Your task to perform on an android device: change text size in settings app Image 0: 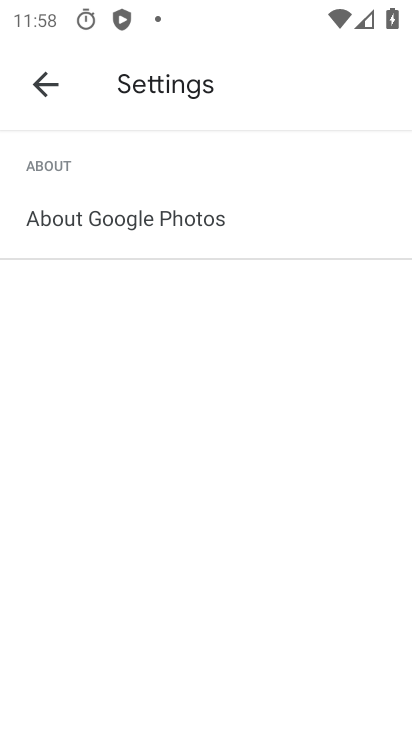
Step 0: press home button
Your task to perform on an android device: change text size in settings app Image 1: 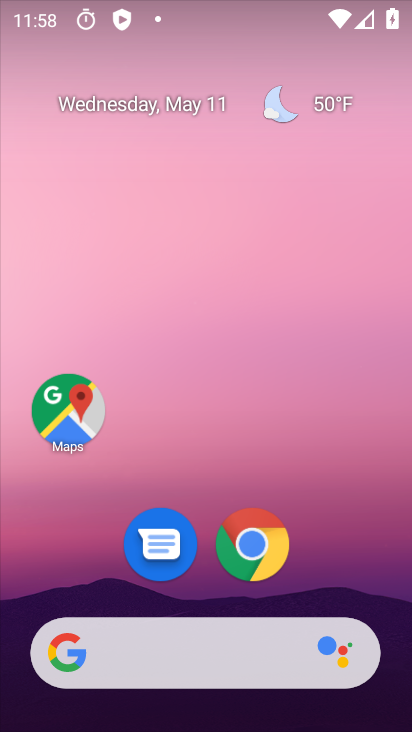
Step 1: drag from (221, 620) to (40, 411)
Your task to perform on an android device: change text size in settings app Image 2: 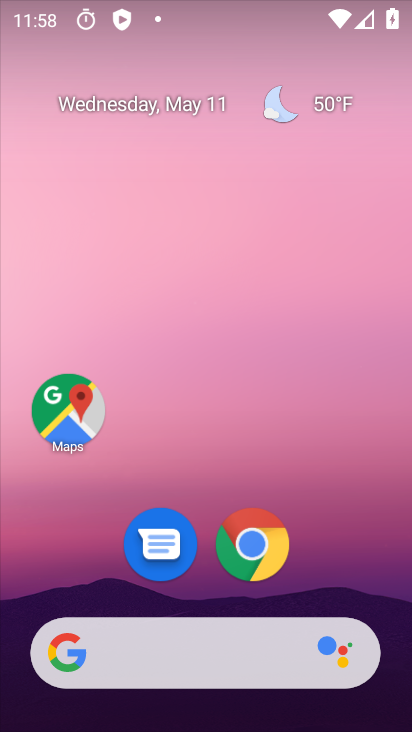
Step 2: drag from (228, 655) to (176, 69)
Your task to perform on an android device: change text size in settings app Image 3: 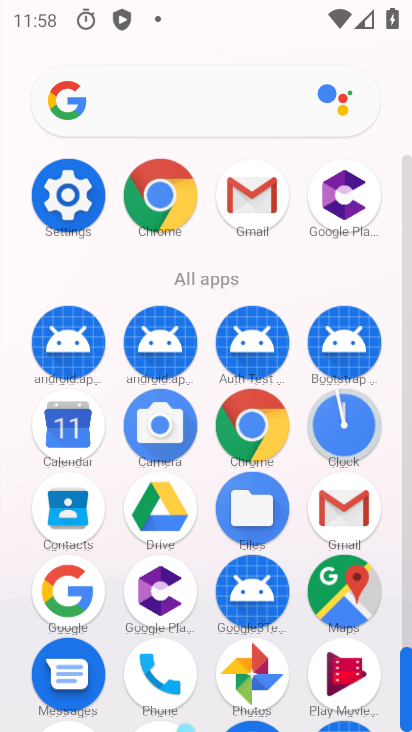
Step 3: click (59, 188)
Your task to perform on an android device: change text size in settings app Image 4: 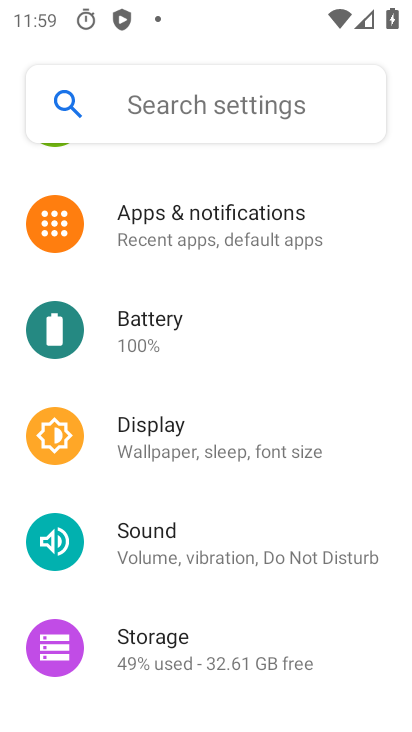
Step 4: click (166, 444)
Your task to perform on an android device: change text size in settings app Image 5: 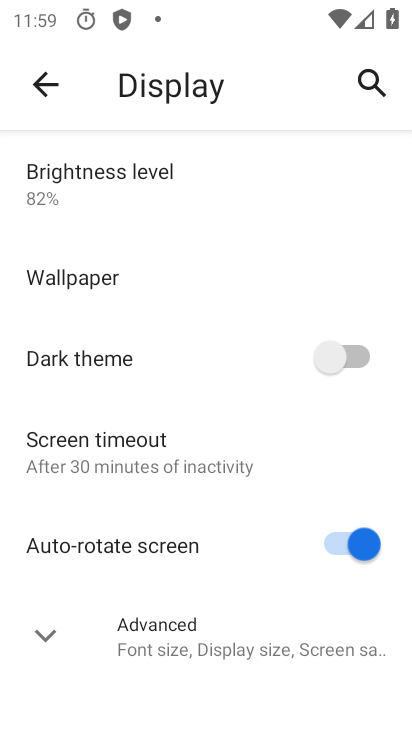
Step 5: drag from (158, 624) to (124, 428)
Your task to perform on an android device: change text size in settings app Image 6: 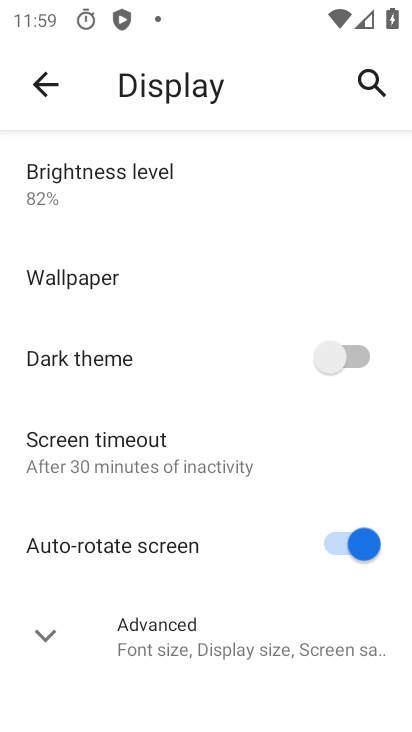
Step 6: click (158, 650)
Your task to perform on an android device: change text size in settings app Image 7: 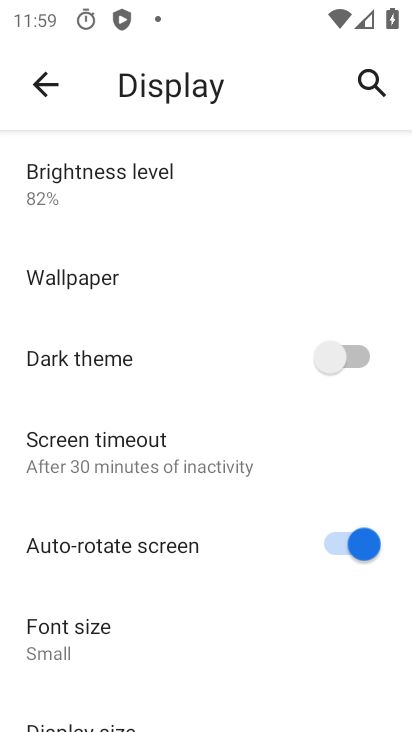
Step 7: drag from (139, 637) to (136, 390)
Your task to perform on an android device: change text size in settings app Image 8: 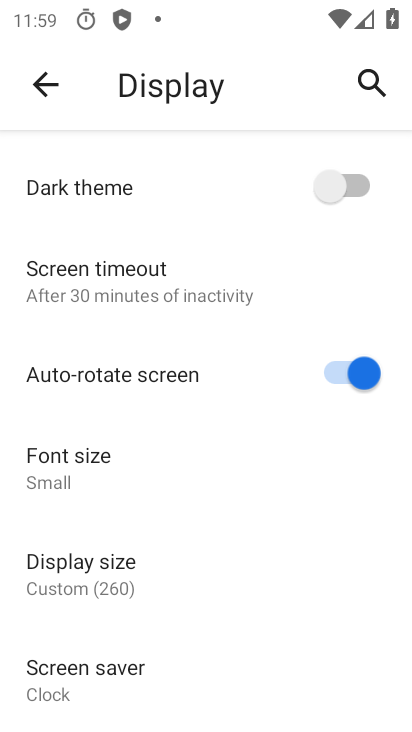
Step 8: click (86, 447)
Your task to perform on an android device: change text size in settings app Image 9: 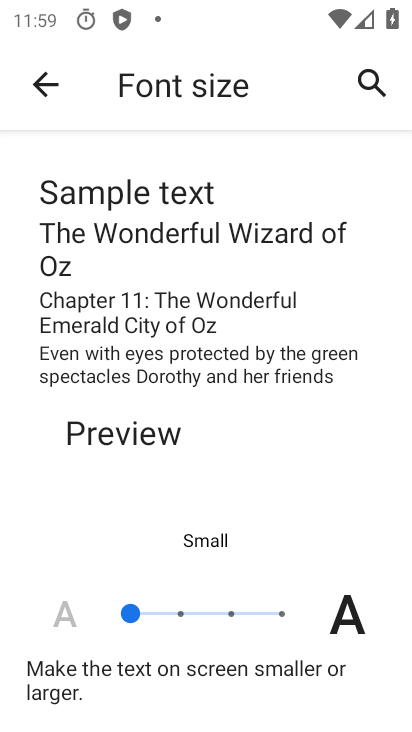
Step 9: click (174, 609)
Your task to perform on an android device: change text size in settings app Image 10: 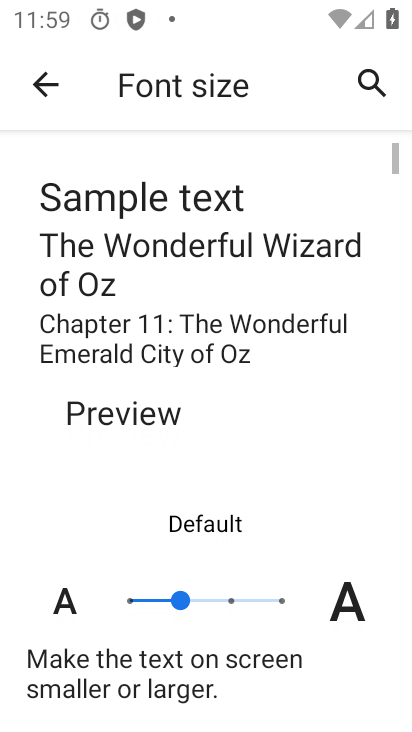
Step 10: task complete